Your task to perform on an android device: Open CNN.com Image 0: 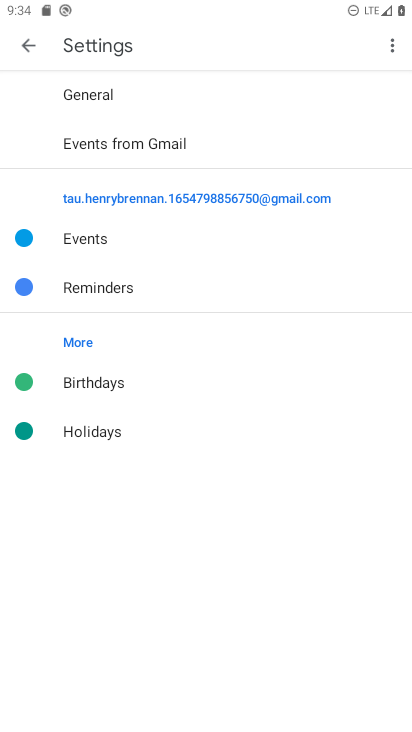
Step 0: press home button
Your task to perform on an android device: Open CNN.com Image 1: 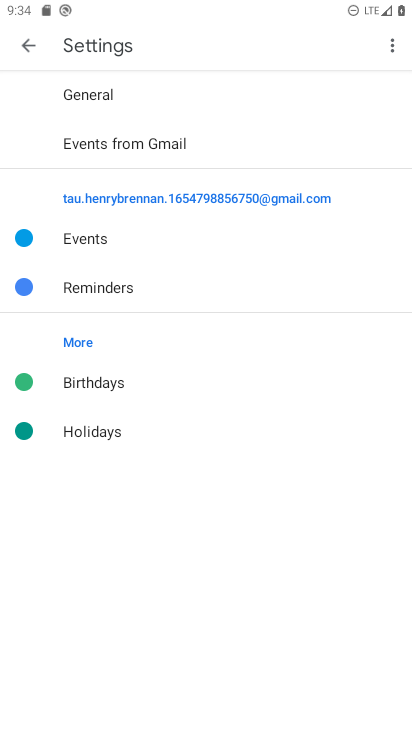
Step 1: click (368, 542)
Your task to perform on an android device: Open CNN.com Image 2: 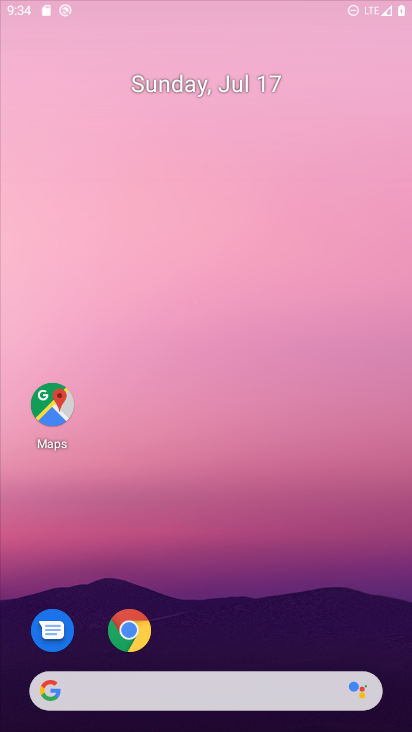
Step 2: drag from (375, 647) to (194, 119)
Your task to perform on an android device: Open CNN.com Image 3: 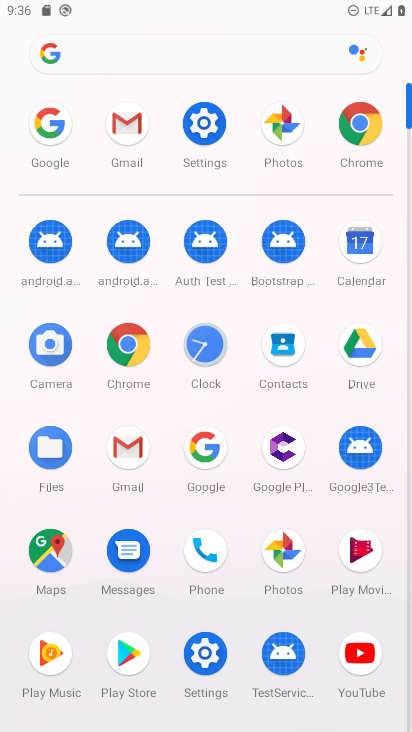
Step 3: click (219, 447)
Your task to perform on an android device: Open CNN.com Image 4: 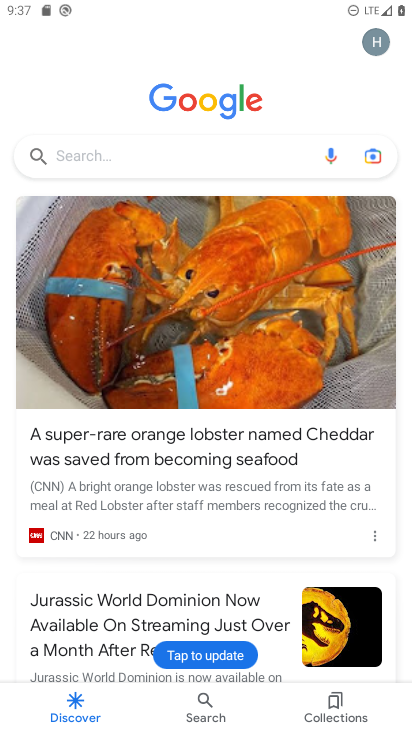
Step 4: click (92, 156)
Your task to perform on an android device: Open CNN.com Image 5: 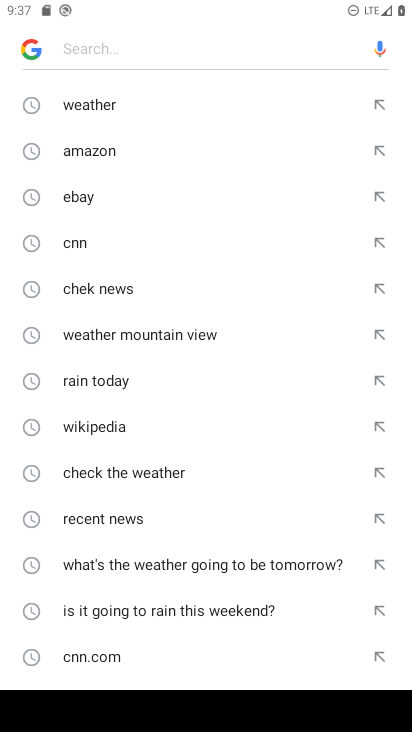
Step 5: click (94, 243)
Your task to perform on an android device: Open CNN.com Image 6: 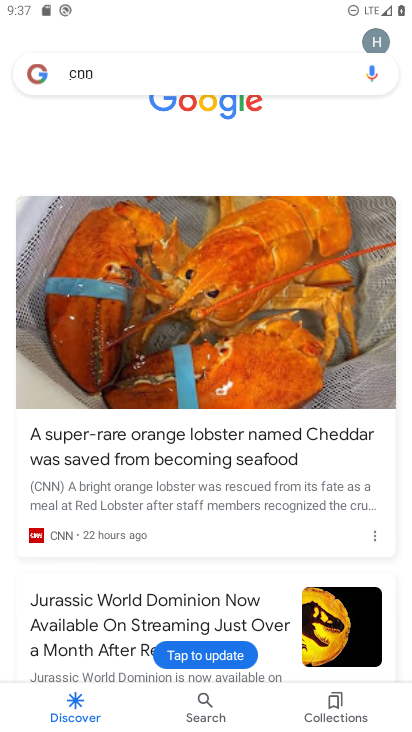
Step 6: click (94, 243)
Your task to perform on an android device: Open CNN.com Image 7: 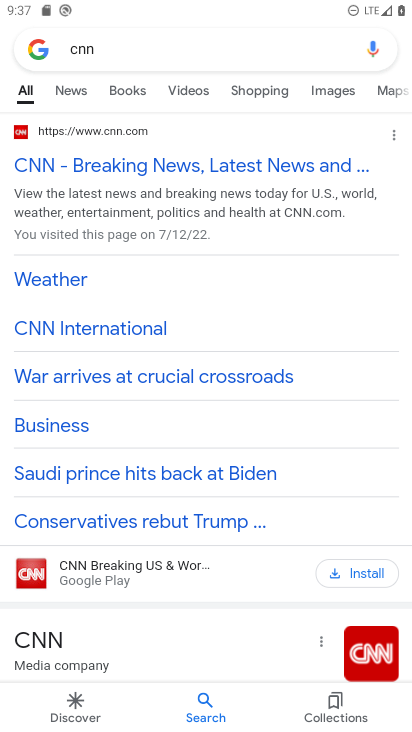
Step 7: task complete